Your task to perform on an android device: Do I have any events tomorrow? Image 0: 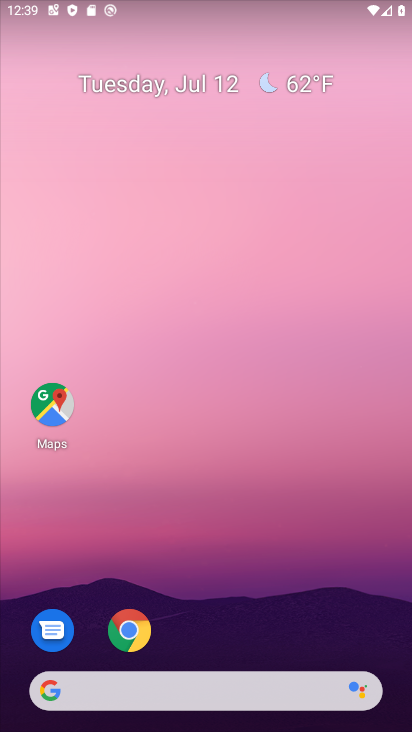
Step 0: drag from (249, 579) to (184, 147)
Your task to perform on an android device: Do I have any events tomorrow? Image 1: 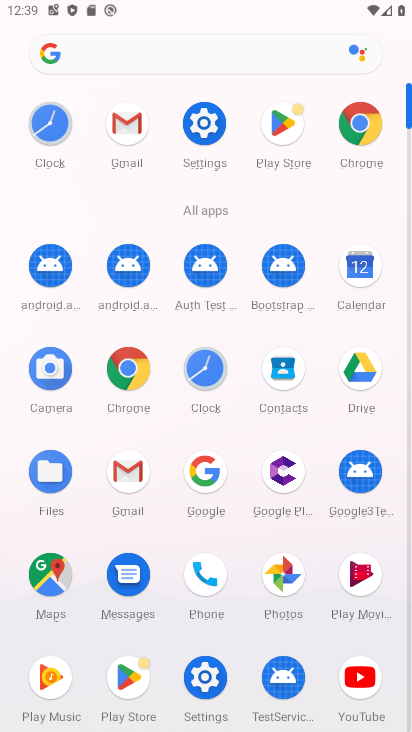
Step 1: click (357, 273)
Your task to perform on an android device: Do I have any events tomorrow? Image 2: 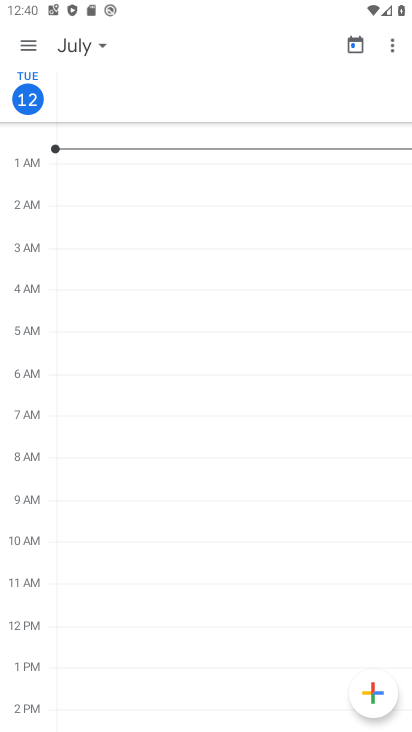
Step 2: click (96, 48)
Your task to perform on an android device: Do I have any events tomorrow? Image 3: 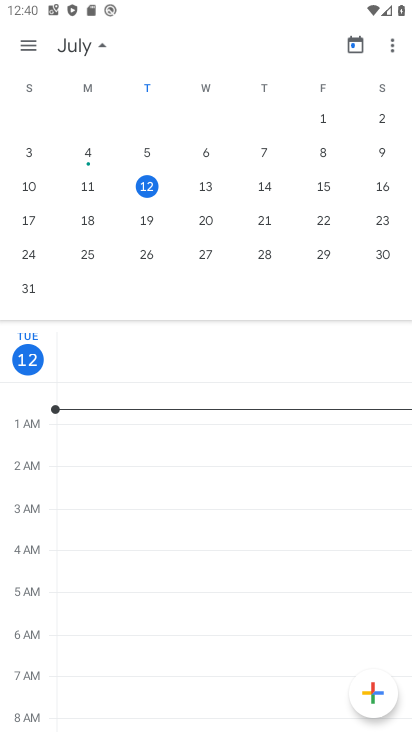
Step 3: click (199, 183)
Your task to perform on an android device: Do I have any events tomorrow? Image 4: 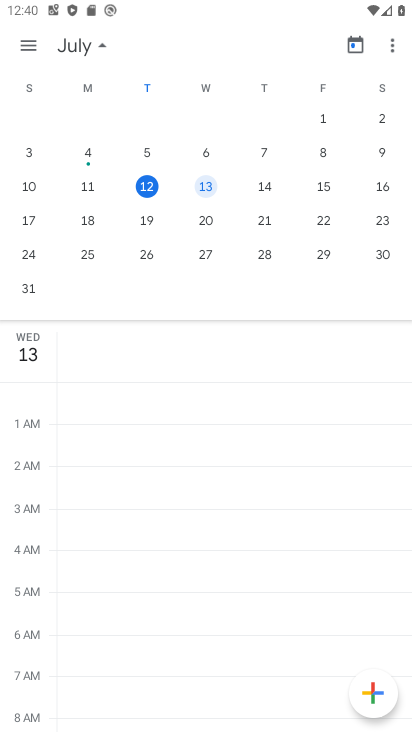
Step 4: task complete